Your task to perform on an android device: all mails in gmail Image 0: 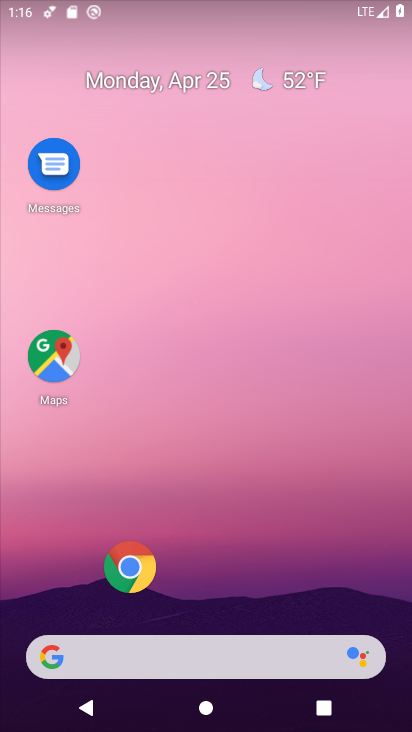
Step 0: drag from (234, 626) to (225, 50)
Your task to perform on an android device: all mails in gmail Image 1: 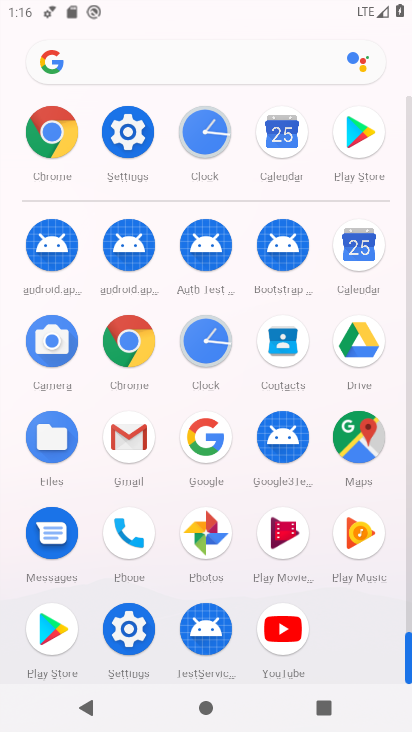
Step 1: click (134, 441)
Your task to perform on an android device: all mails in gmail Image 2: 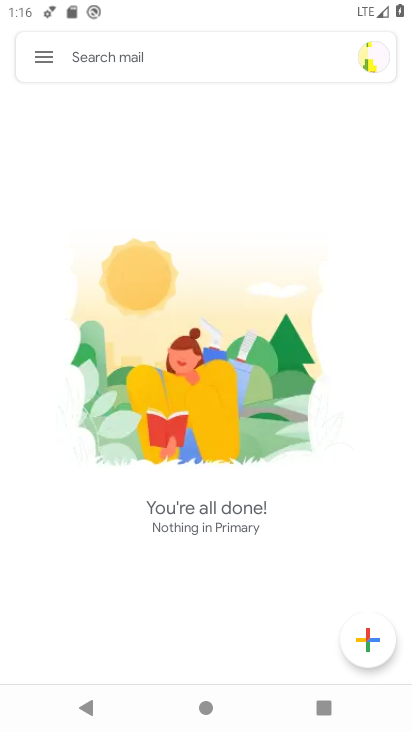
Step 2: click (46, 68)
Your task to perform on an android device: all mails in gmail Image 3: 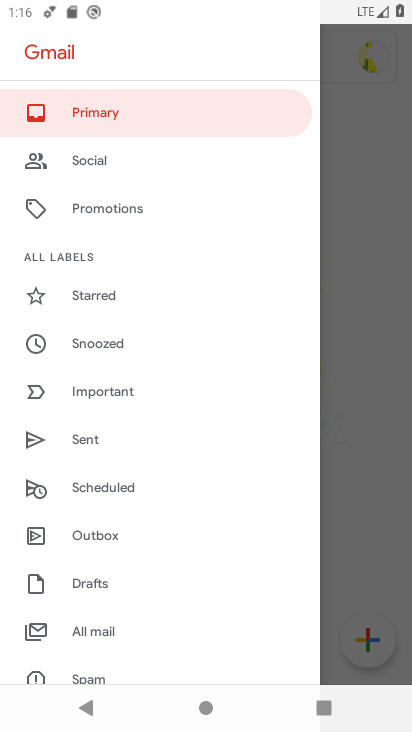
Step 3: drag from (92, 581) to (180, 210)
Your task to perform on an android device: all mails in gmail Image 4: 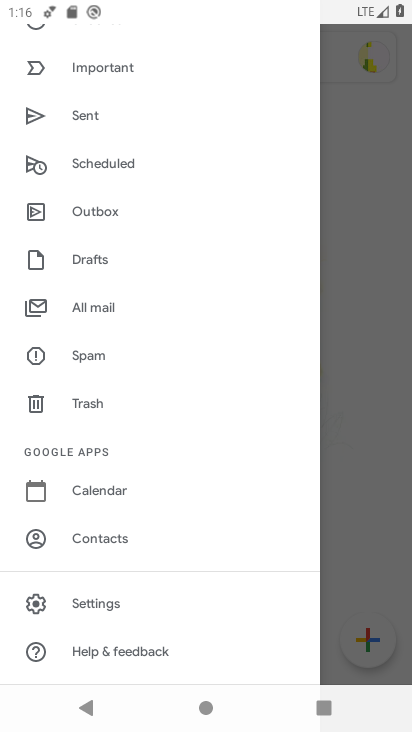
Step 4: click (94, 317)
Your task to perform on an android device: all mails in gmail Image 5: 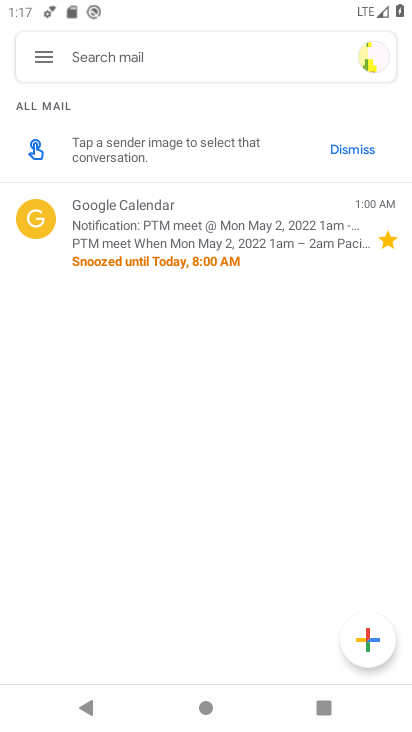
Step 5: task complete